Your task to perform on an android device: open wifi settings Image 0: 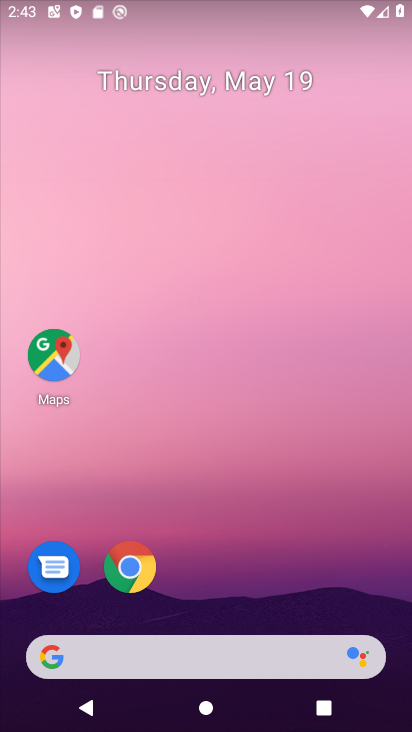
Step 0: drag from (211, 727) to (187, 91)
Your task to perform on an android device: open wifi settings Image 1: 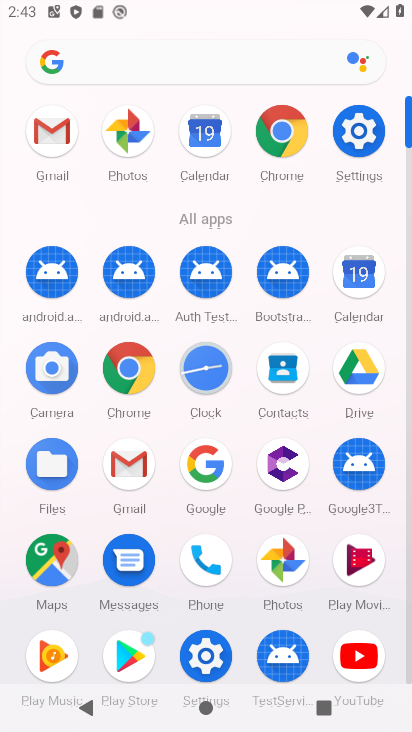
Step 1: click (358, 136)
Your task to perform on an android device: open wifi settings Image 2: 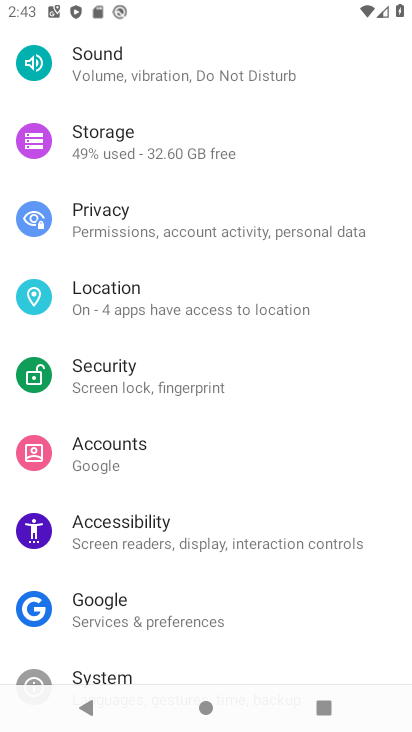
Step 2: drag from (228, 93) to (239, 522)
Your task to perform on an android device: open wifi settings Image 3: 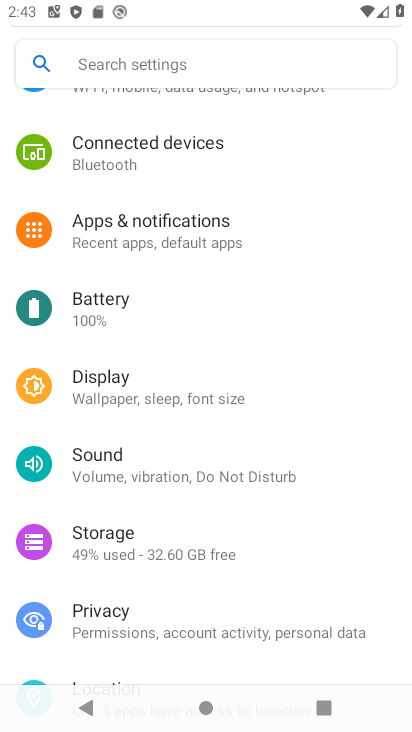
Step 3: drag from (187, 157) to (220, 479)
Your task to perform on an android device: open wifi settings Image 4: 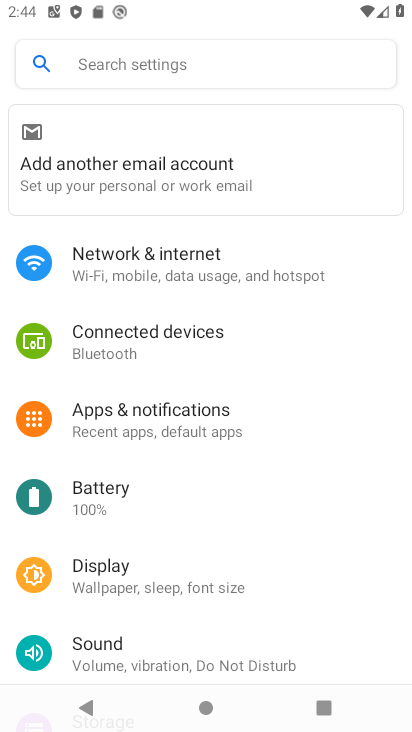
Step 4: click (167, 263)
Your task to perform on an android device: open wifi settings Image 5: 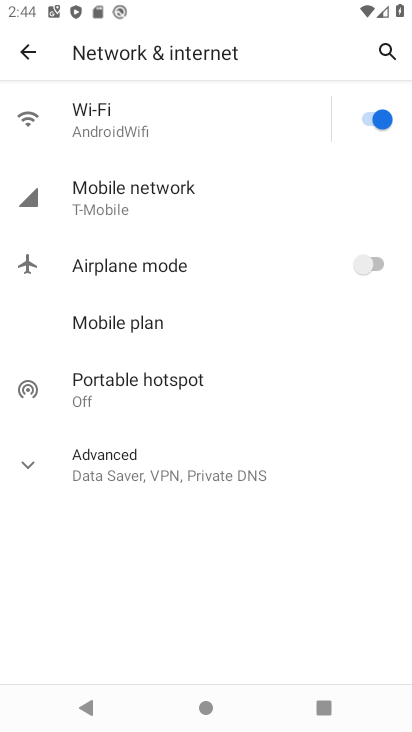
Step 5: click (102, 114)
Your task to perform on an android device: open wifi settings Image 6: 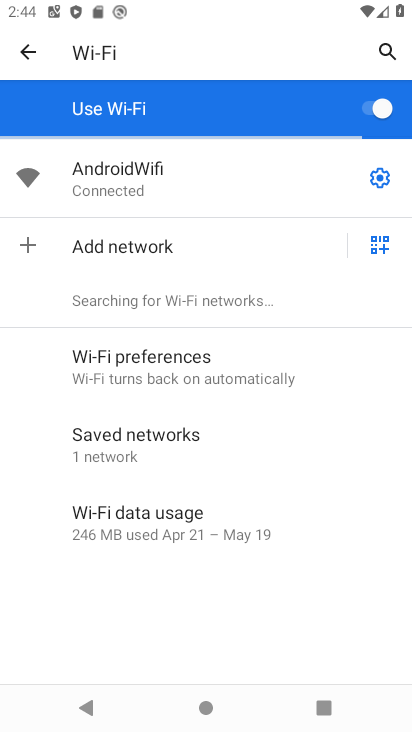
Step 6: task complete